Your task to perform on an android device: Play the last video I watched on Youtube Image 0: 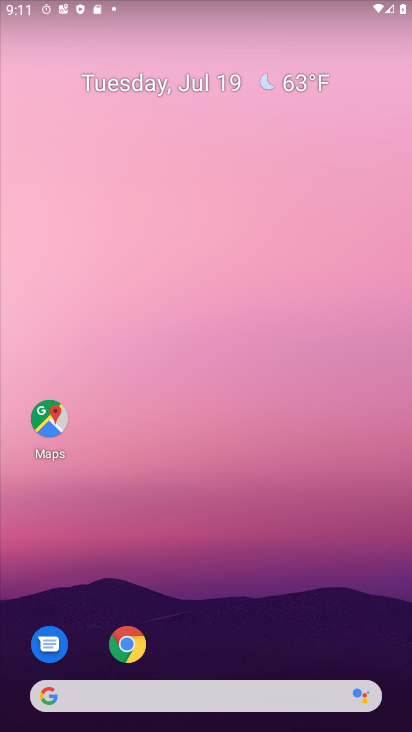
Step 0: drag from (226, 608) to (226, 201)
Your task to perform on an android device: Play the last video I watched on Youtube Image 1: 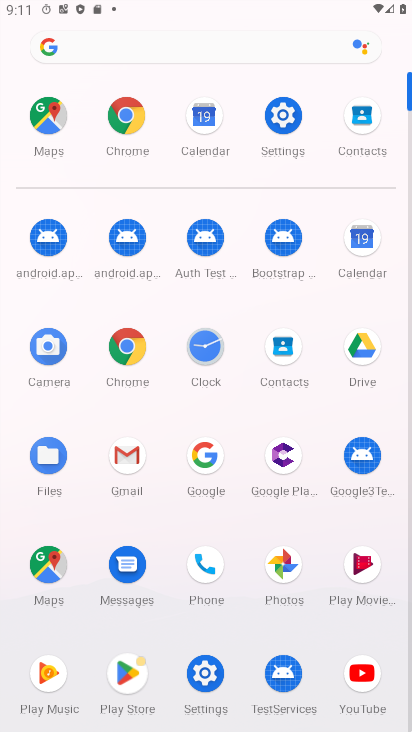
Step 1: click (357, 670)
Your task to perform on an android device: Play the last video I watched on Youtube Image 2: 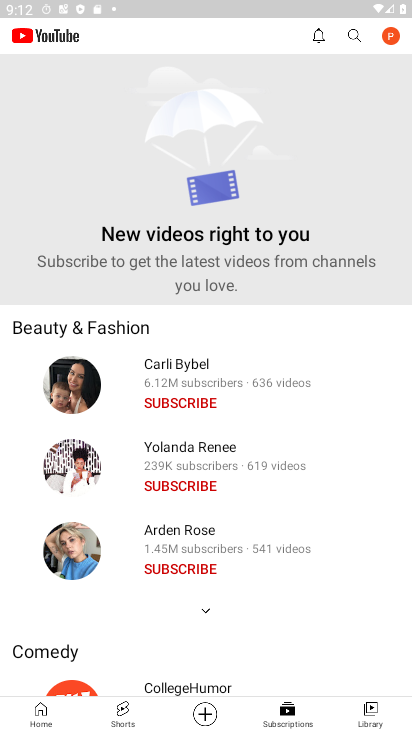
Step 2: task complete